Your task to perform on an android device: find photos in the google photos app Image 0: 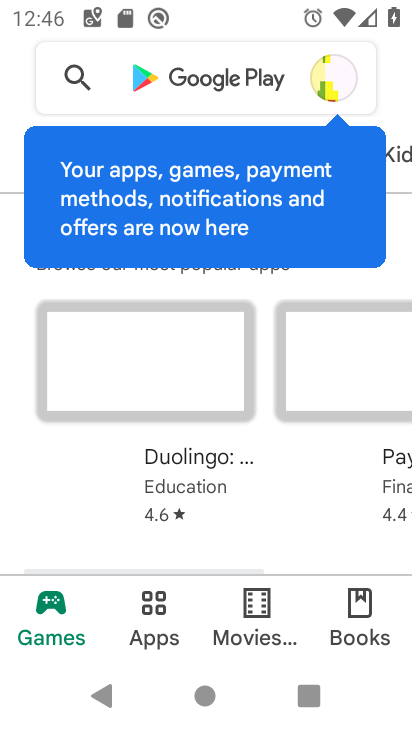
Step 0: press home button
Your task to perform on an android device: find photos in the google photos app Image 1: 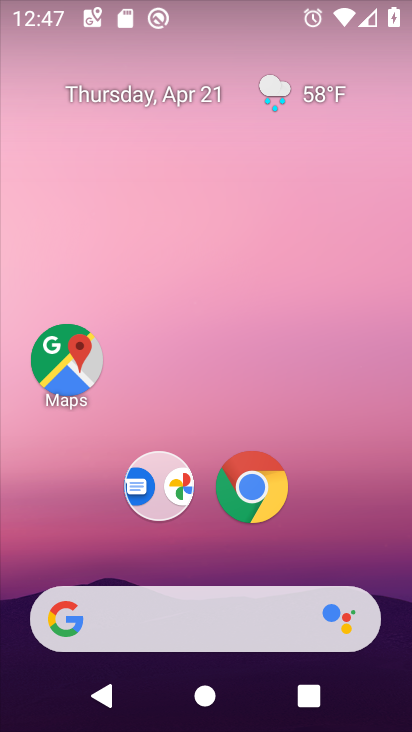
Step 1: drag from (229, 643) to (350, 169)
Your task to perform on an android device: find photos in the google photos app Image 2: 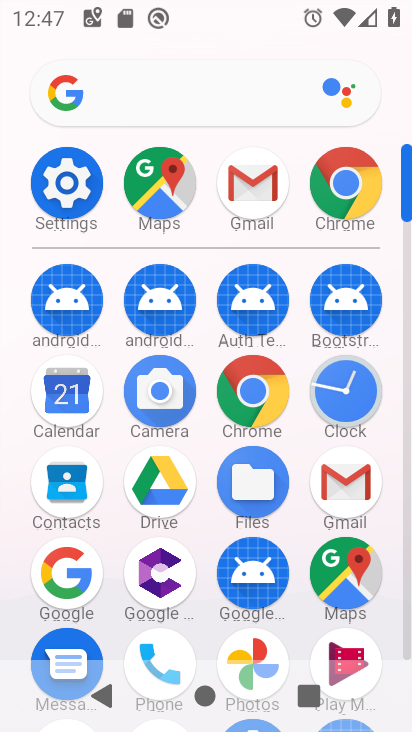
Step 2: click (242, 635)
Your task to perform on an android device: find photos in the google photos app Image 3: 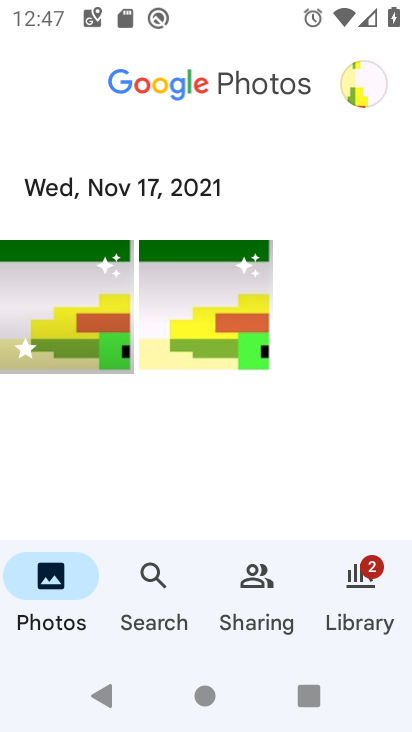
Step 3: task complete